Your task to perform on an android device: check storage Image 0: 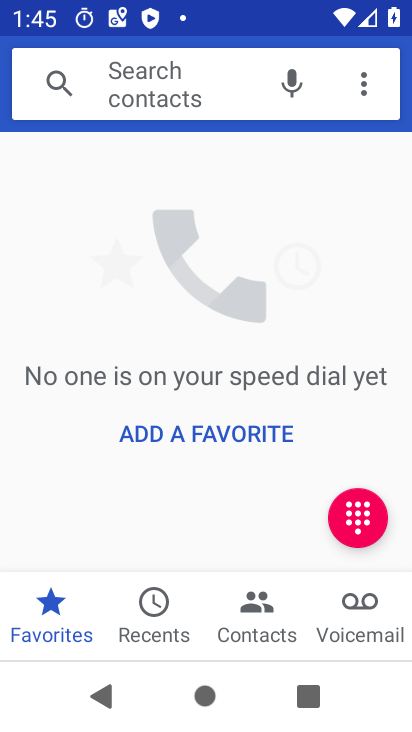
Step 0: press back button
Your task to perform on an android device: check storage Image 1: 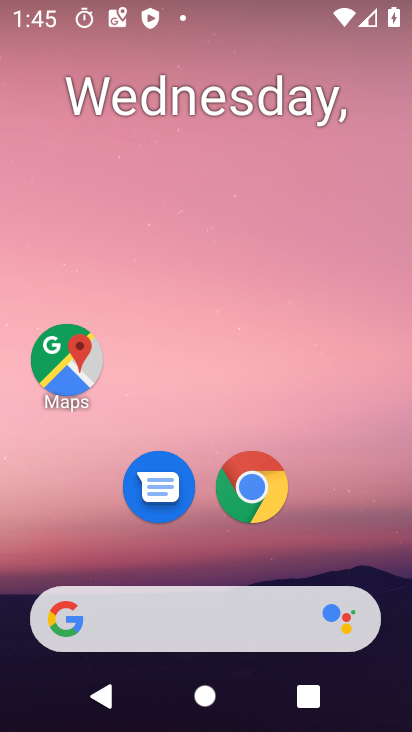
Step 1: drag from (215, 565) to (259, 12)
Your task to perform on an android device: check storage Image 2: 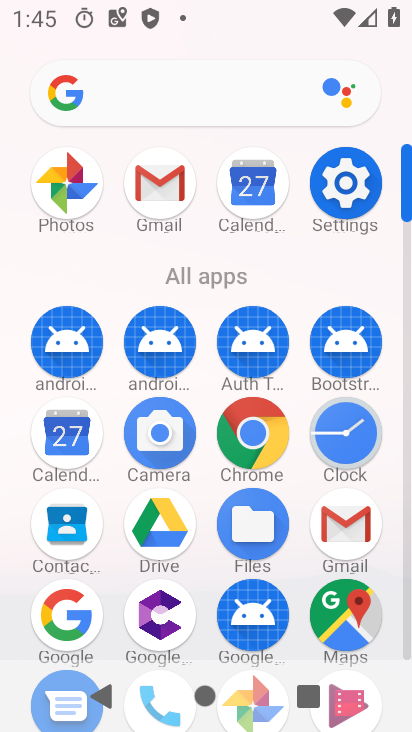
Step 2: click (353, 176)
Your task to perform on an android device: check storage Image 3: 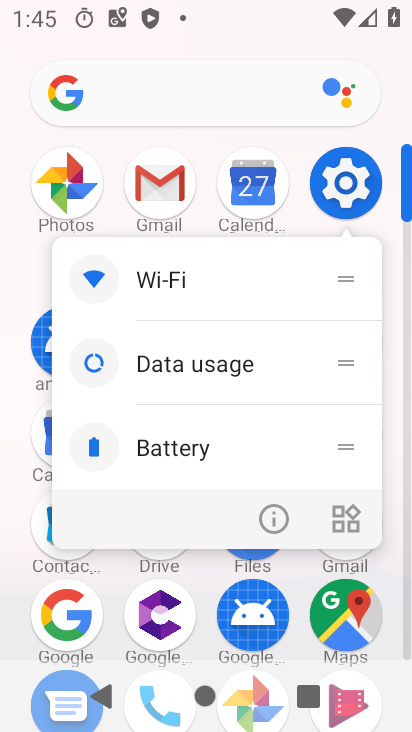
Step 3: click (342, 177)
Your task to perform on an android device: check storage Image 4: 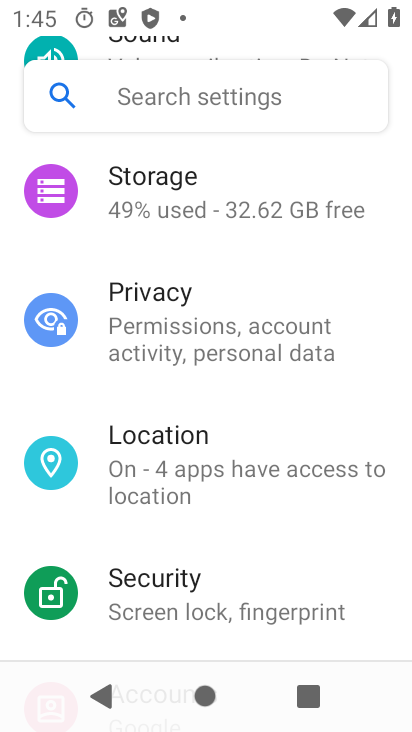
Step 4: click (188, 193)
Your task to perform on an android device: check storage Image 5: 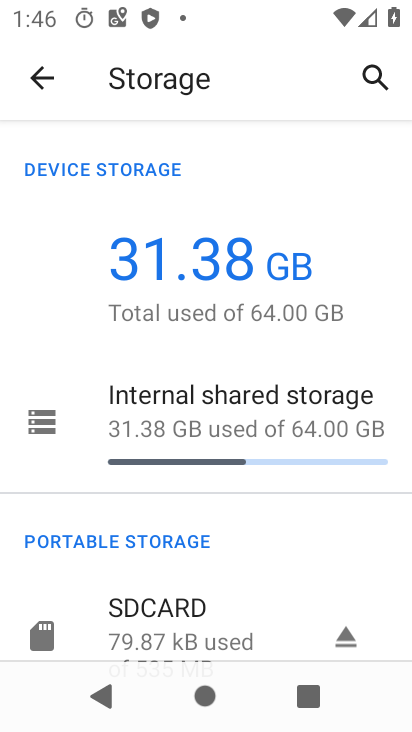
Step 5: task complete